Your task to perform on an android device: Open ESPN.com Image 0: 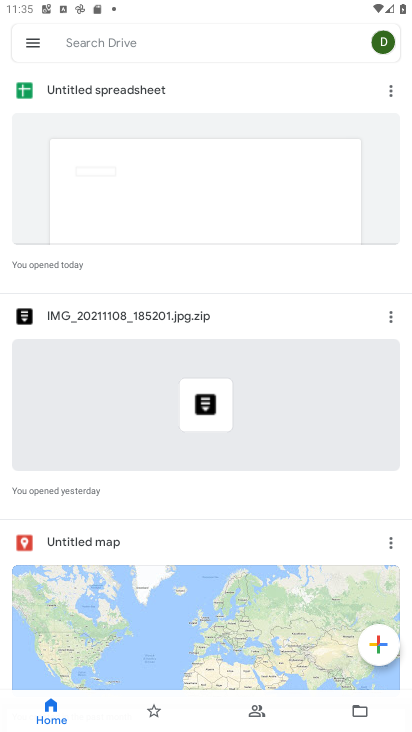
Step 0: press home button
Your task to perform on an android device: Open ESPN.com Image 1: 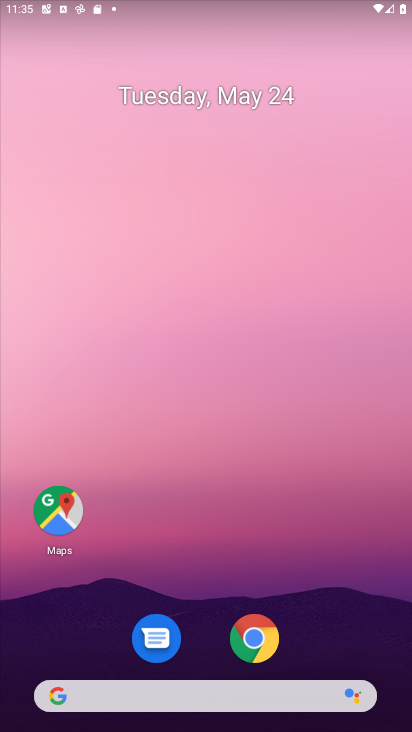
Step 1: click (177, 704)
Your task to perform on an android device: Open ESPN.com Image 2: 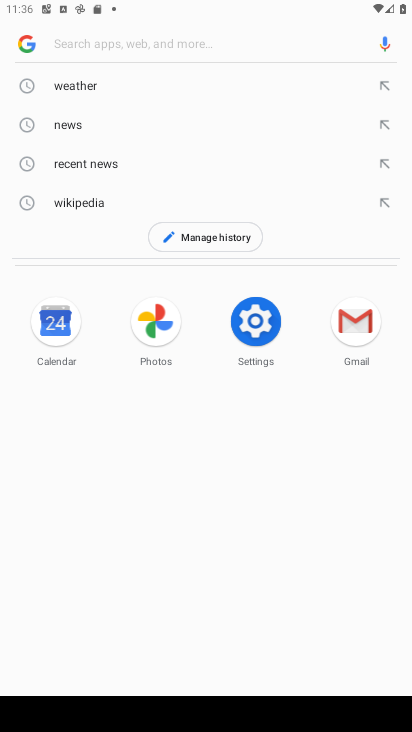
Step 2: type "espn.com"
Your task to perform on an android device: Open ESPN.com Image 3: 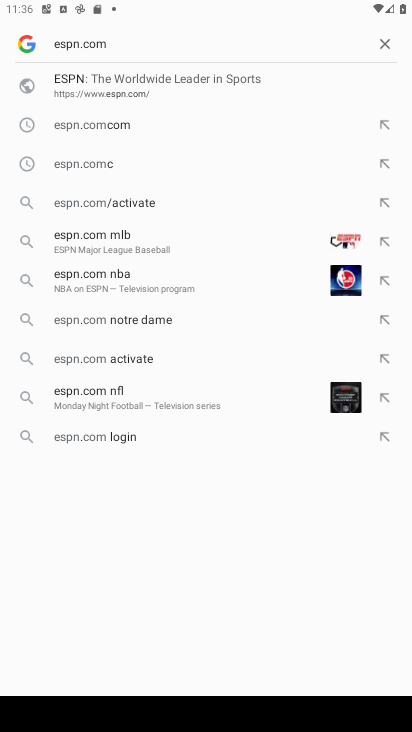
Step 3: click (125, 83)
Your task to perform on an android device: Open ESPN.com Image 4: 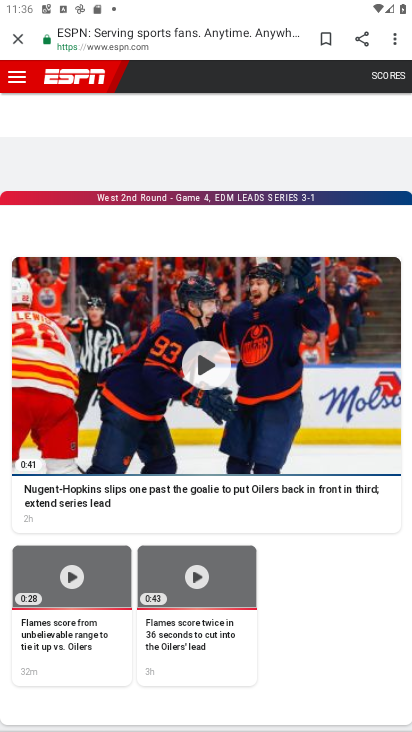
Step 4: task complete